Your task to perform on an android device: turn on notifications settings in the gmail app Image 0: 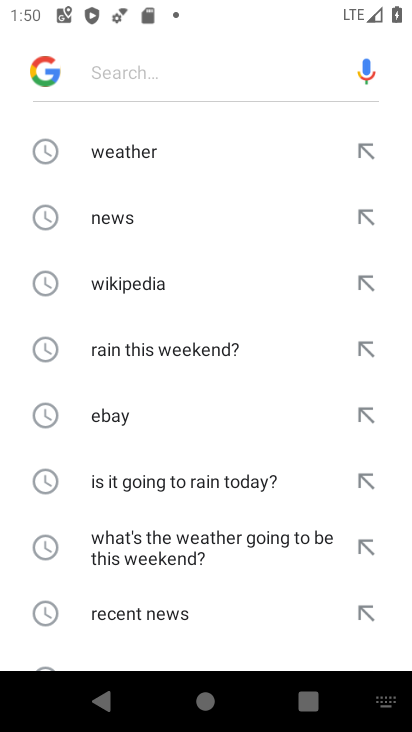
Step 0: press home button
Your task to perform on an android device: turn on notifications settings in the gmail app Image 1: 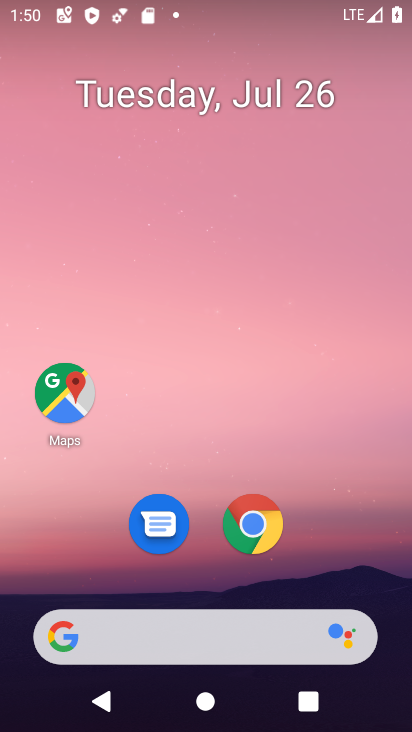
Step 1: drag from (317, 530) to (295, 51)
Your task to perform on an android device: turn on notifications settings in the gmail app Image 2: 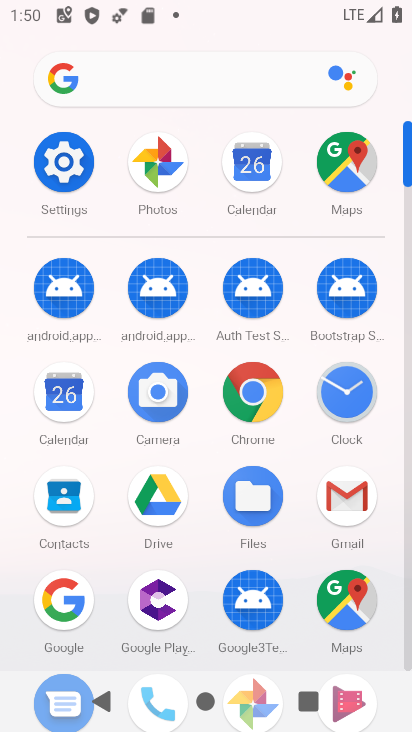
Step 2: click (349, 487)
Your task to perform on an android device: turn on notifications settings in the gmail app Image 3: 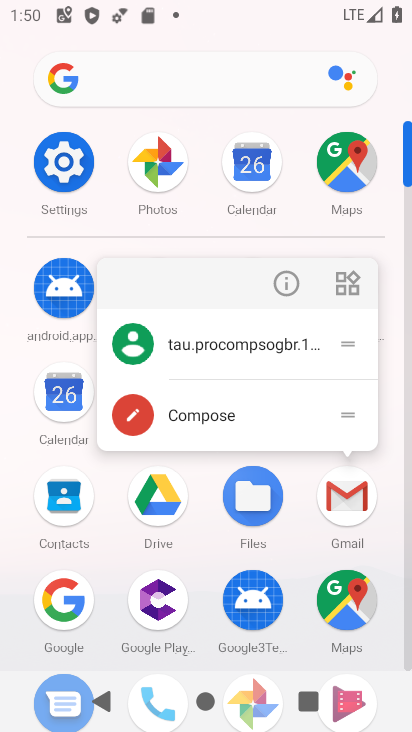
Step 3: click (349, 482)
Your task to perform on an android device: turn on notifications settings in the gmail app Image 4: 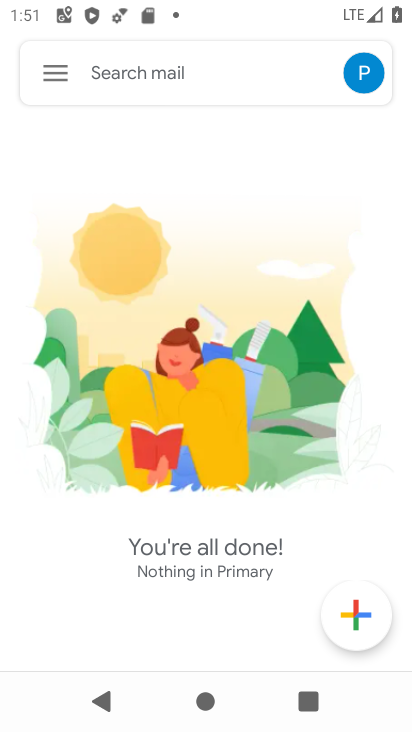
Step 4: click (55, 79)
Your task to perform on an android device: turn on notifications settings in the gmail app Image 5: 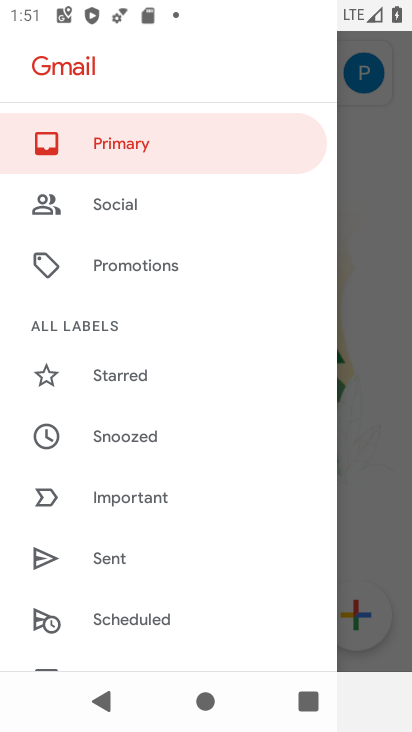
Step 5: drag from (175, 547) to (190, 38)
Your task to perform on an android device: turn on notifications settings in the gmail app Image 6: 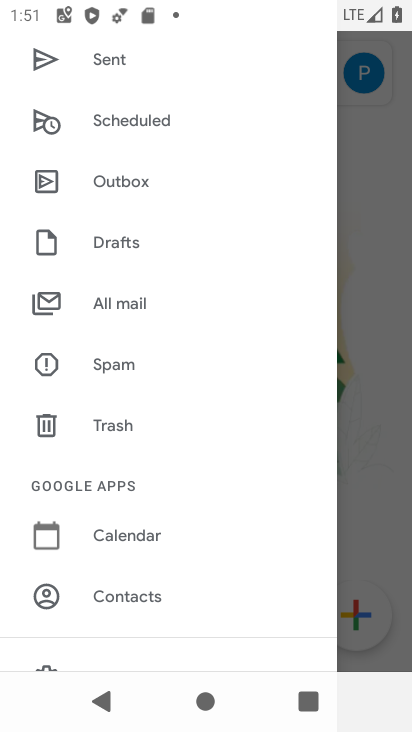
Step 6: drag from (188, 468) to (188, 153)
Your task to perform on an android device: turn on notifications settings in the gmail app Image 7: 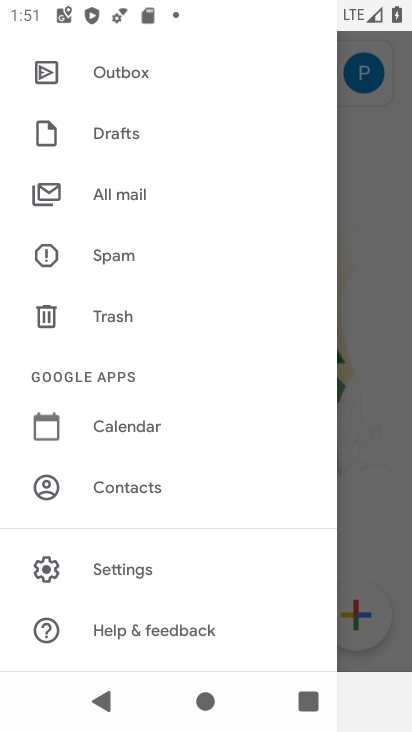
Step 7: click (144, 574)
Your task to perform on an android device: turn on notifications settings in the gmail app Image 8: 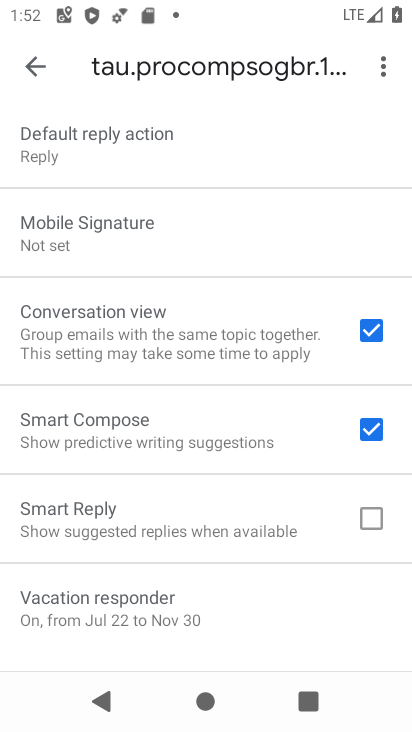
Step 8: drag from (207, 226) to (208, 569)
Your task to perform on an android device: turn on notifications settings in the gmail app Image 9: 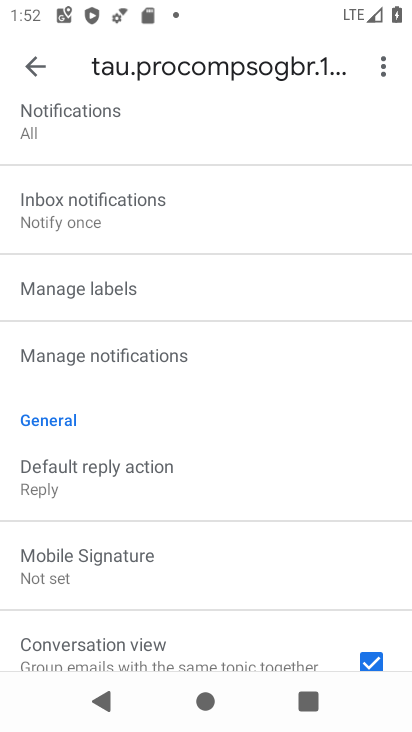
Step 9: click (206, 352)
Your task to perform on an android device: turn on notifications settings in the gmail app Image 10: 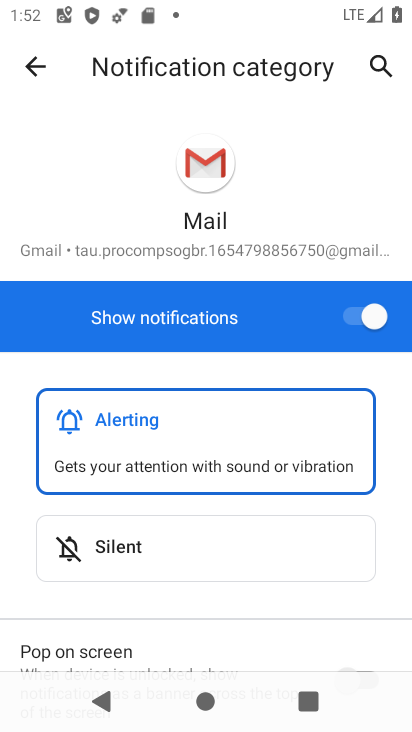
Step 10: task complete